Your task to perform on an android device: Open calendar and show me the second week of next month Image 0: 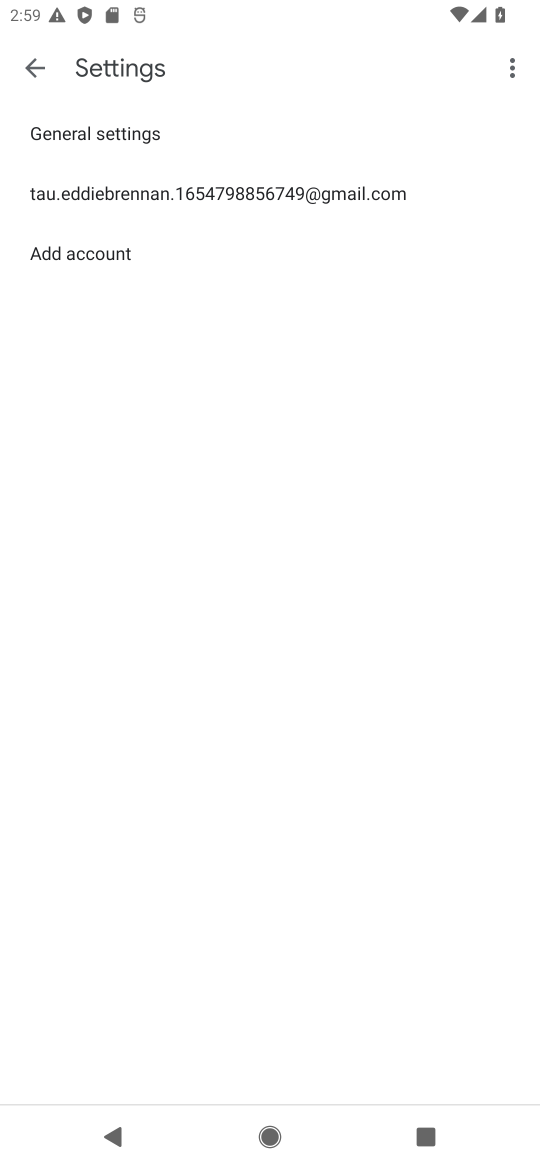
Step 0: press home button
Your task to perform on an android device: Open calendar and show me the second week of next month Image 1: 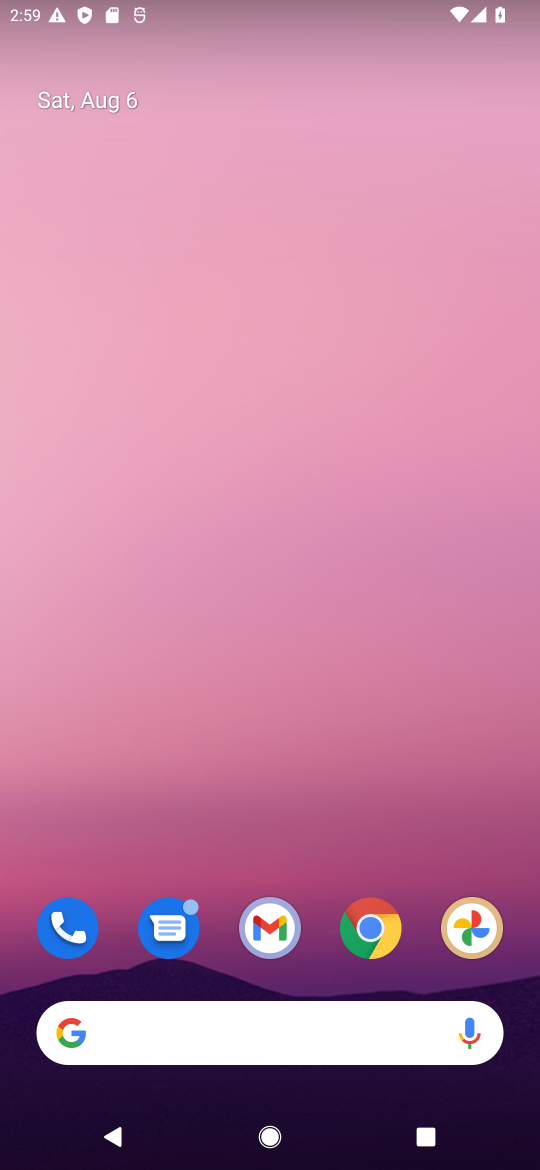
Step 1: drag from (402, 1028) to (243, 41)
Your task to perform on an android device: Open calendar and show me the second week of next month Image 2: 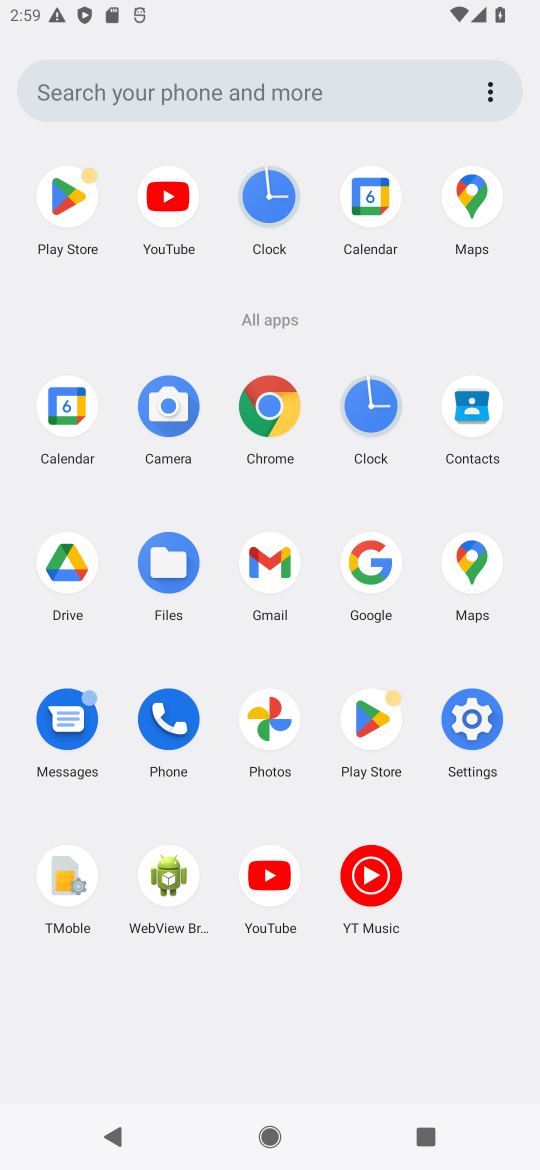
Step 2: click (354, 210)
Your task to perform on an android device: Open calendar and show me the second week of next month Image 3: 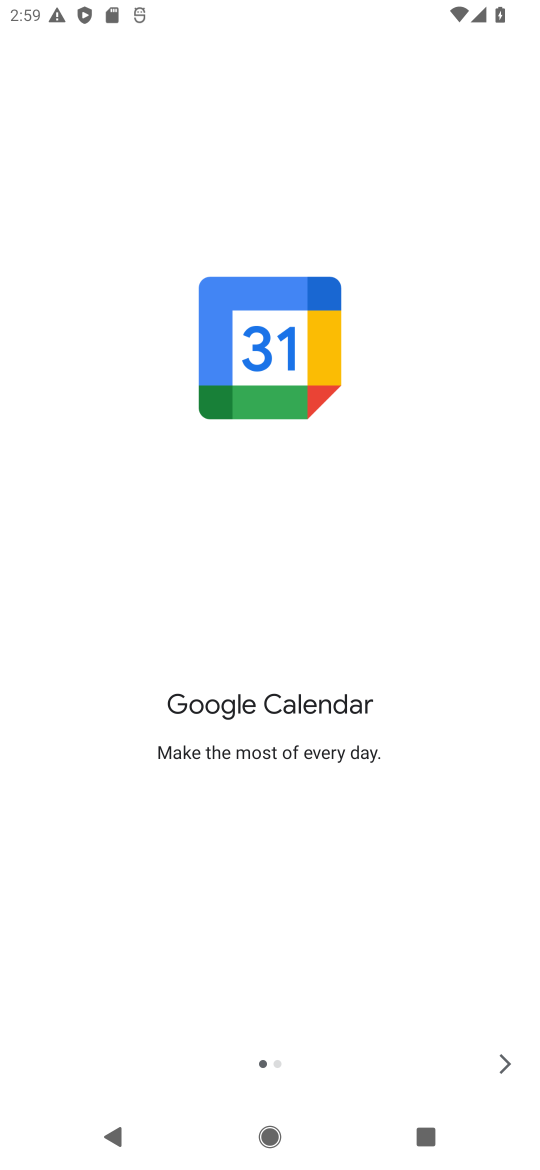
Step 3: click (508, 1049)
Your task to perform on an android device: Open calendar and show me the second week of next month Image 4: 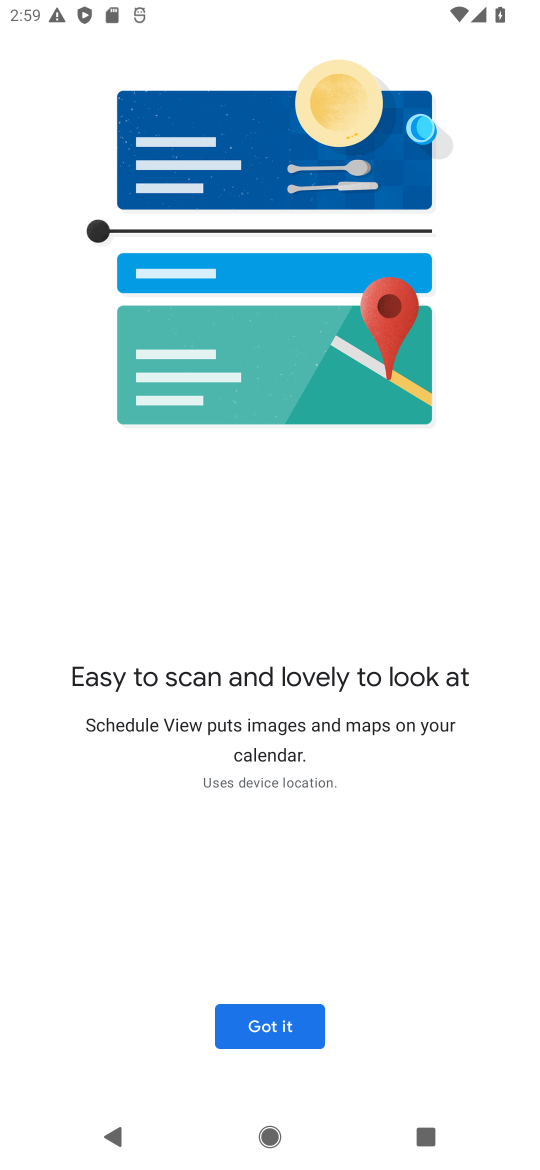
Step 4: click (499, 1070)
Your task to perform on an android device: Open calendar and show me the second week of next month Image 5: 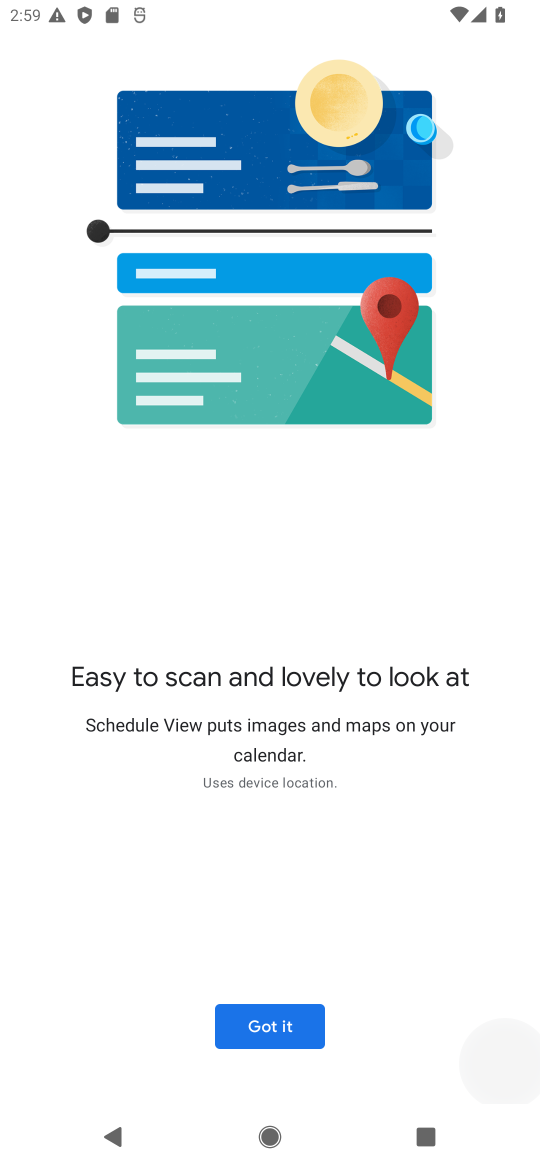
Step 5: click (234, 1016)
Your task to perform on an android device: Open calendar and show me the second week of next month Image 6: 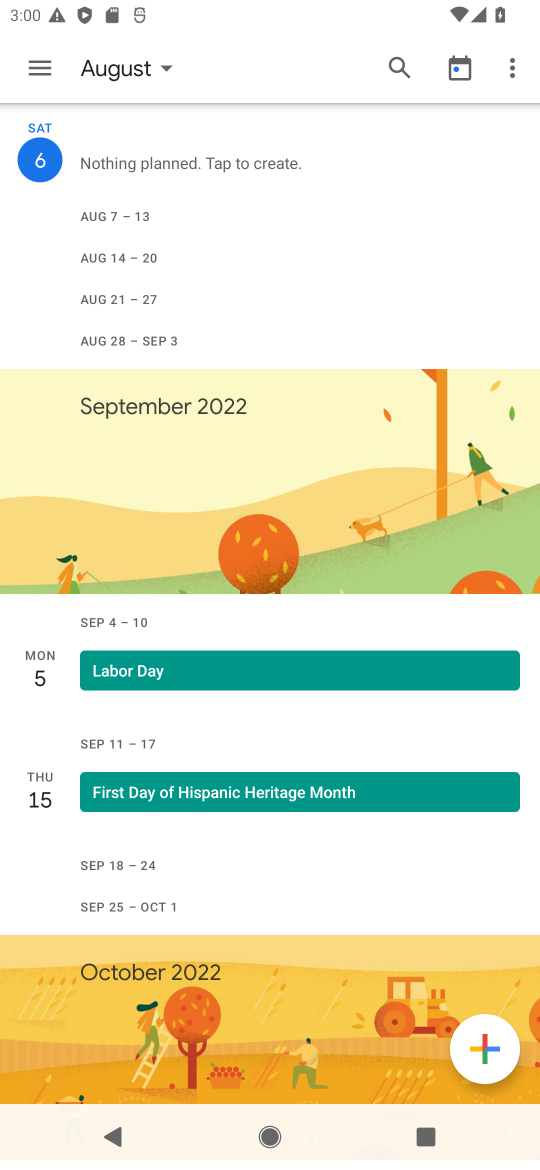
Step 6: click (41, 68)
Your task to perform on an android device: Open calendar and show me the second week of next month Image 7: 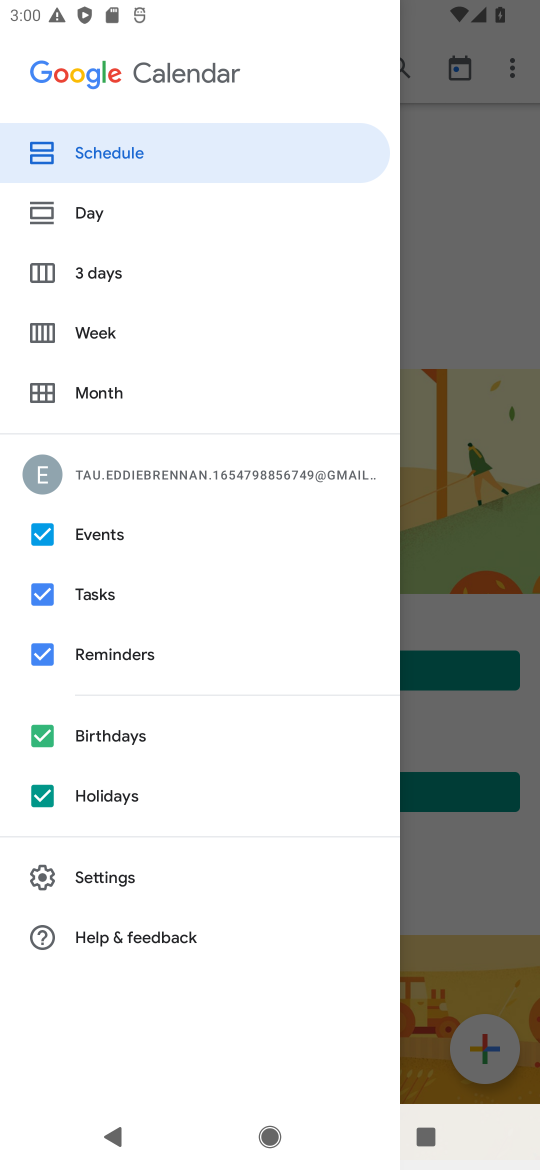
Step 7: click (177, 332)
Your task to perform on an android device: Open calendar and show me the second week of next month Image 8: 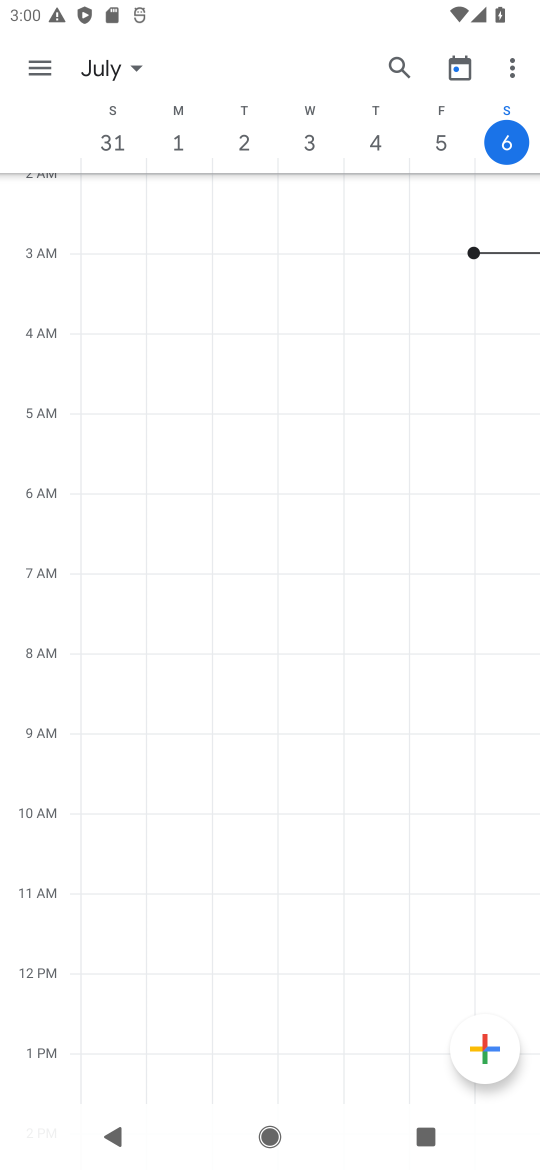
Step 8: task complete